Your task to perform on an android device: toggle translation in the chrome app Image 0: 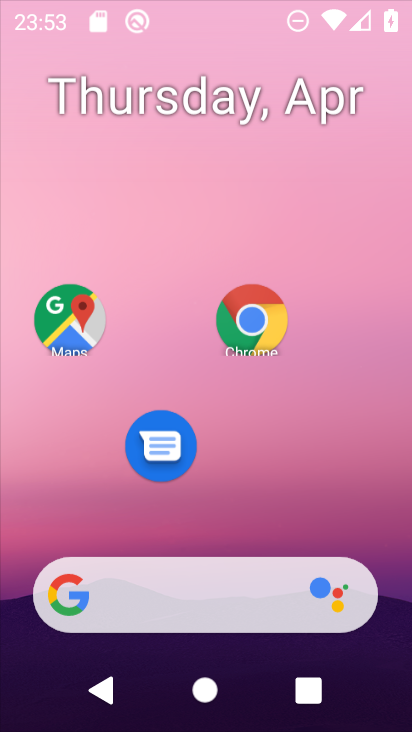
Step 0: drag from (258, 133) to (199, 177)
Your task to perform on an android device: toggle translation in the chrome app Image 1: 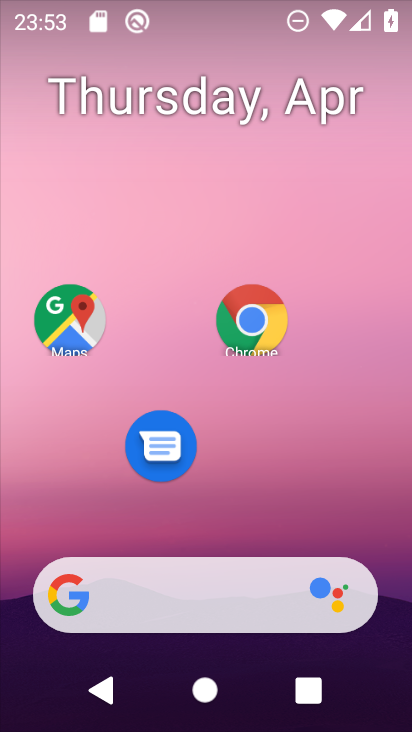
Step 1: drag from (209, 536) to (205, 161)
Your task to perform on an android device: toggle translation in the chrome app Image 2: 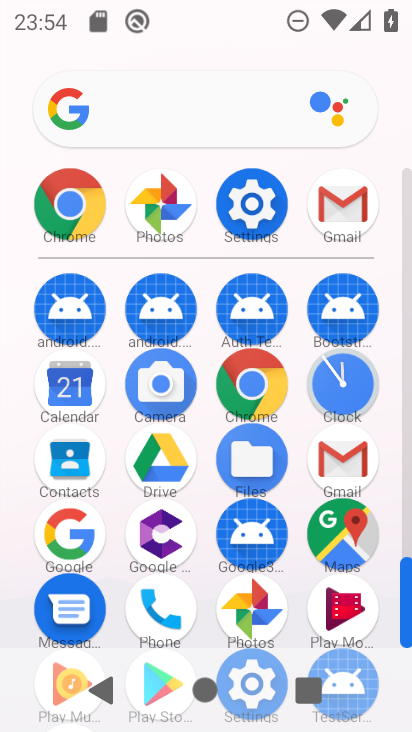
Step 2: click (247, 381)
Your task to perform on an android device: toggle translation in the chrome app Image 3: 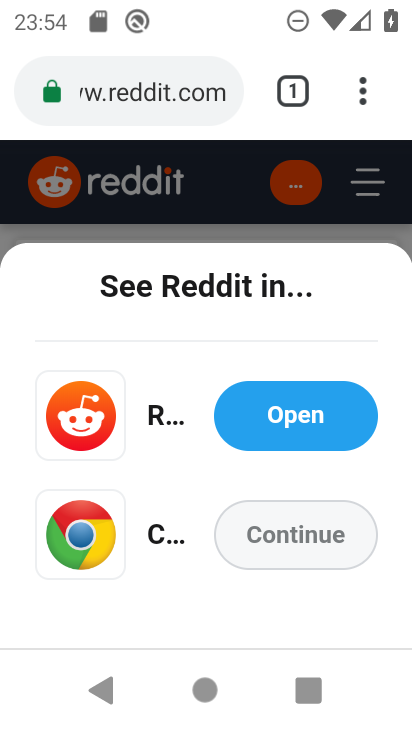
Step 3: click (185, 207)
Your task to perform on an android device: toggle translation in the chrome app Image 4: 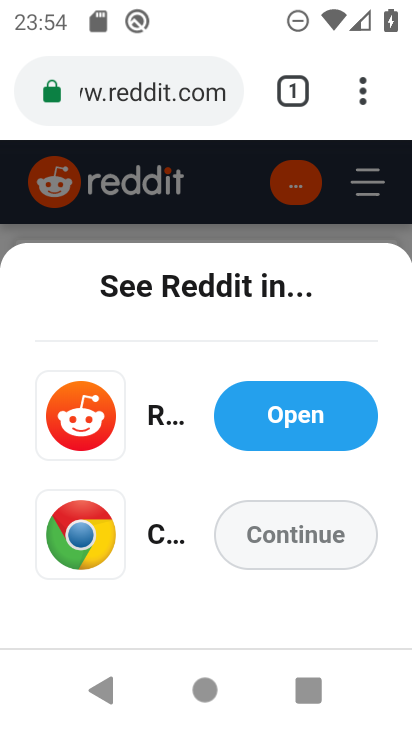
Step 4: click (353, 92)
Your task to perform on an android device: toggle translation in the chrome app Image 5: 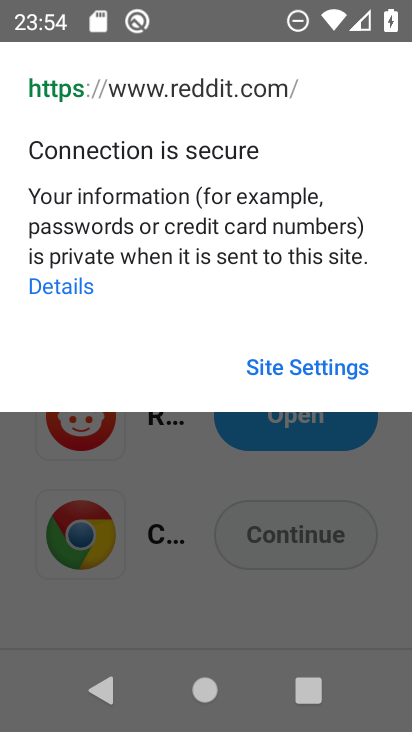
Step 5: click (312, 359)
Your task to perform on an android device: toggle translation in the chrome app Image 6: 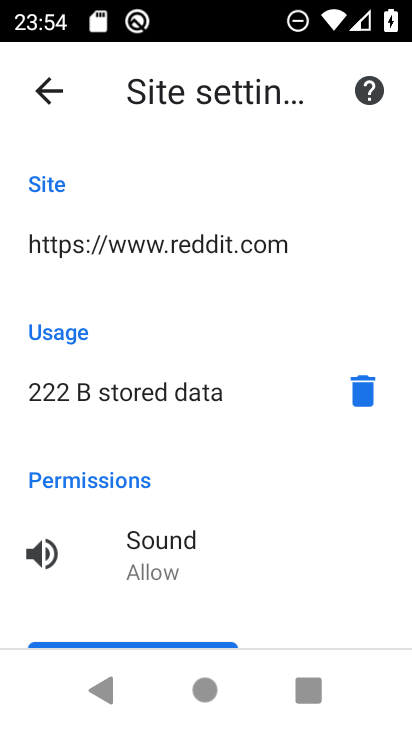
Step 6: click (39, 62)
Your task to perform on an android device: toggle translation in the chrome app Image 7: 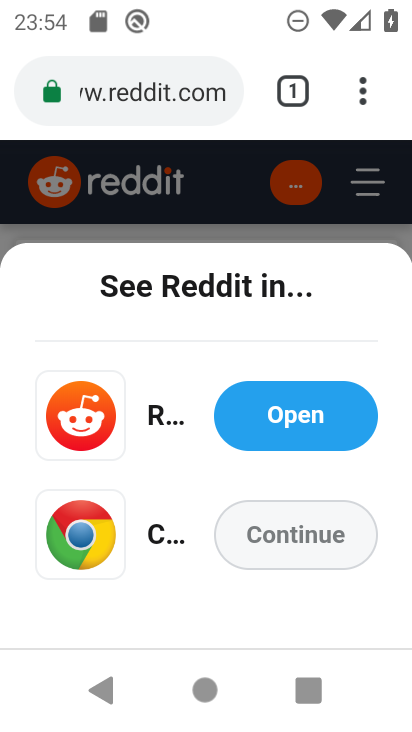
Step 7: drag from (352, 79) to (112, 473)
Your task to perform on an android device: toggle translation in the chrome app Image 8: 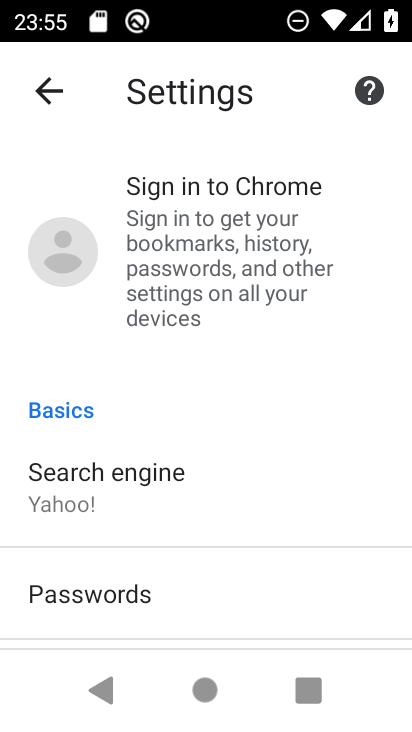
Step 8: drag from (224, 579) to (294, 76)
Your task to perform on an android device: toggle translation in the chrome app Image 9: 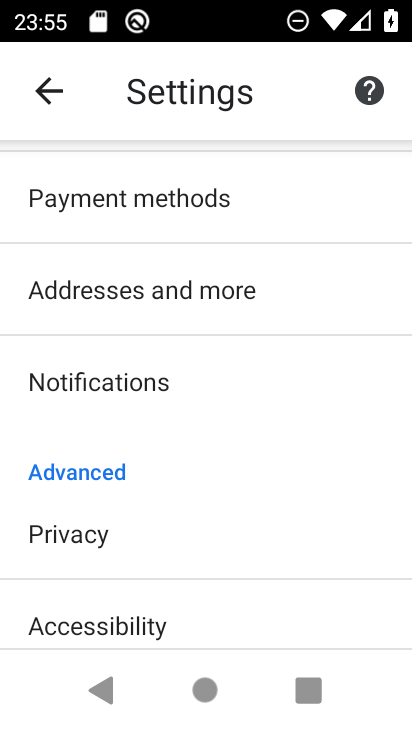
Step 9: drag from (134, 554) to (221, 187)
Your task to perform on an android device: toggle translation in the chrome app Image 10: 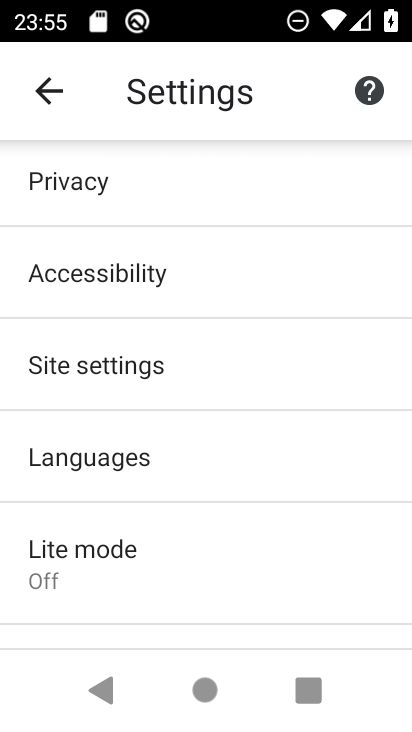
Step 10: click (146, 450)
Your task to perform on an android device: toggle translation in the chrome app Image 11: 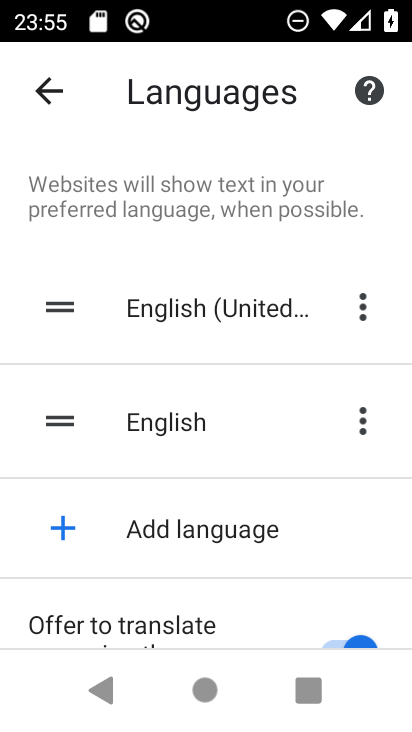
Step 11: drag from (288, 286) to (325, 136)
Your task to perform on an android device: toggle translation in the chrome app Image 12: 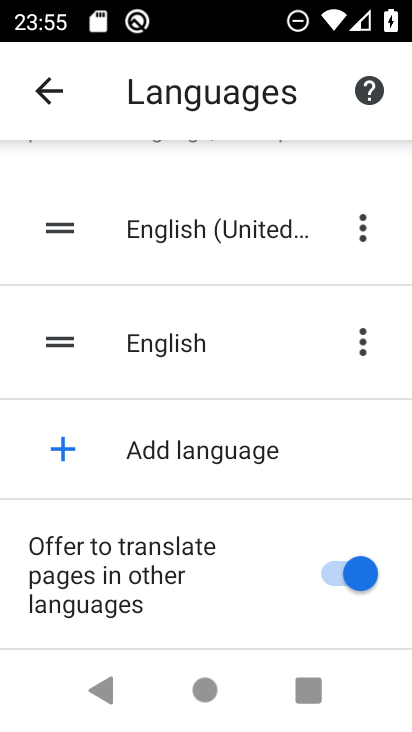
Step 12: click (281, 561)
Your task to perform on an android device: toggle translation in the chrome app Image 13: 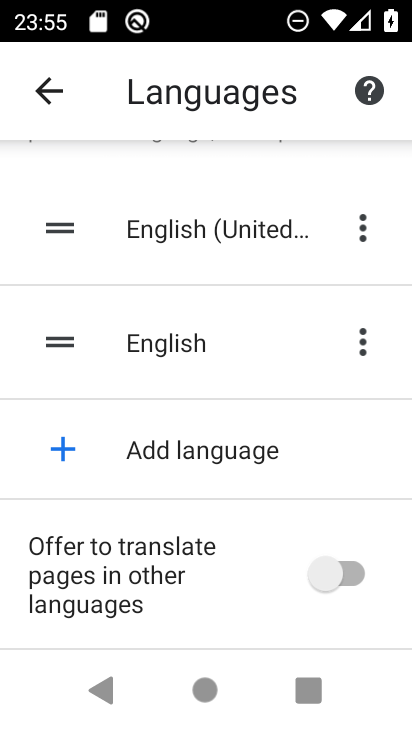
Step 13: task complete